Your task to perform on an android device: Show me productivity apps on the Play Store Image 0: 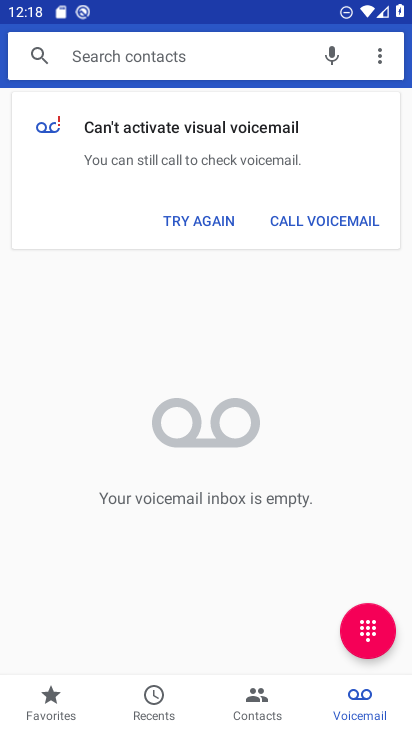
Step 0: press home button
Your task to perform on an android device: Show me productivity apps on the Play Store Image 1: 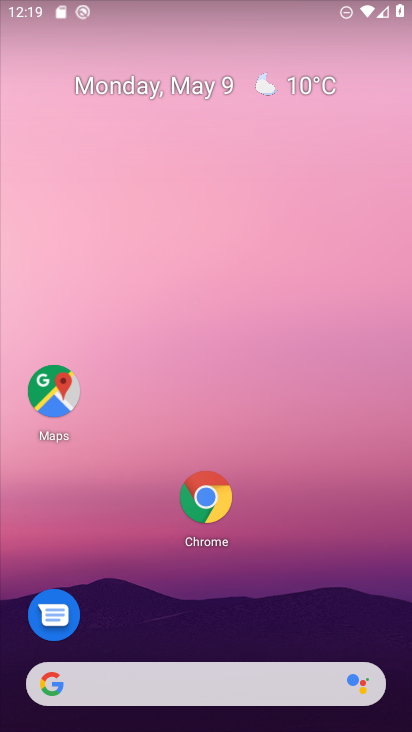
Step 1: drag from (280, 610) to (316, 12)
Your task to perform on an android device: Show me productivity apps on the Play Store Image 2: 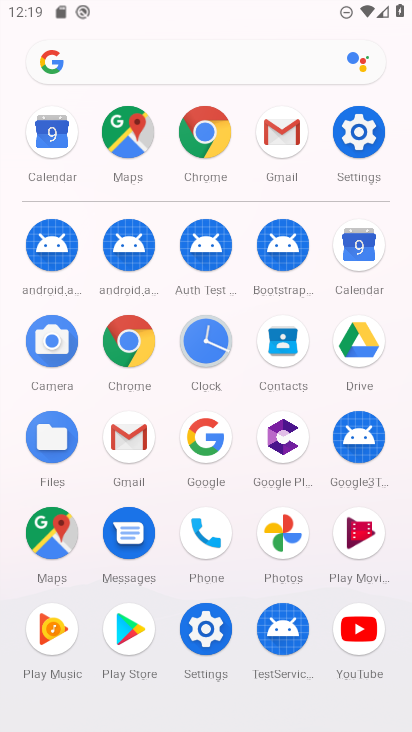
Step 2: click (137, 620)
Your task to perform on an android device: Show me productivity apps on the Play Store Image 3: 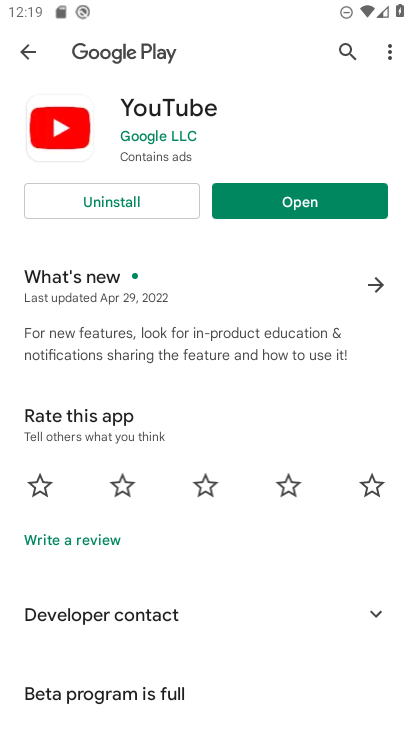
Step 3: click (19, 42)
Your task to perform on an android device: Show me productivity apps on the Play Store Image 4: 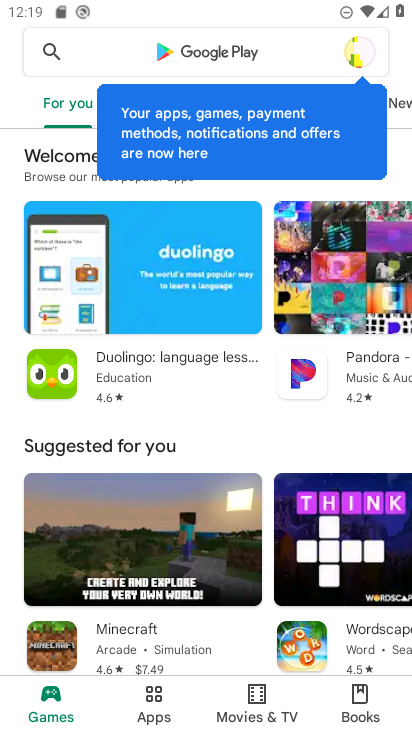
Step 4: click (146, 701)
Your task to perform on an android device: Show me productivity apps on the Play Store Image 5: 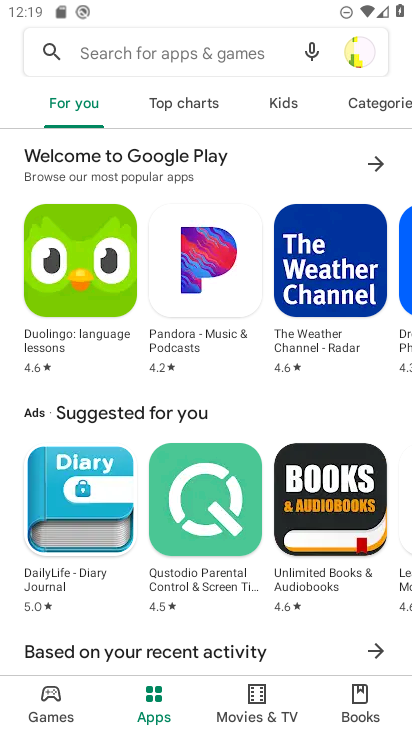
Step 5: task complete